Your task to perform on an android device: check out phone information Image 0: 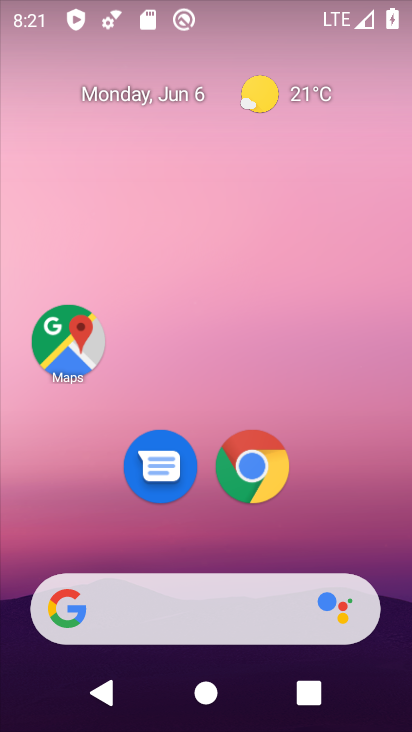
Step 0: drag from (188, 555) to (22, 263)
Your task to perform on an android device: check out phone information Image 1: 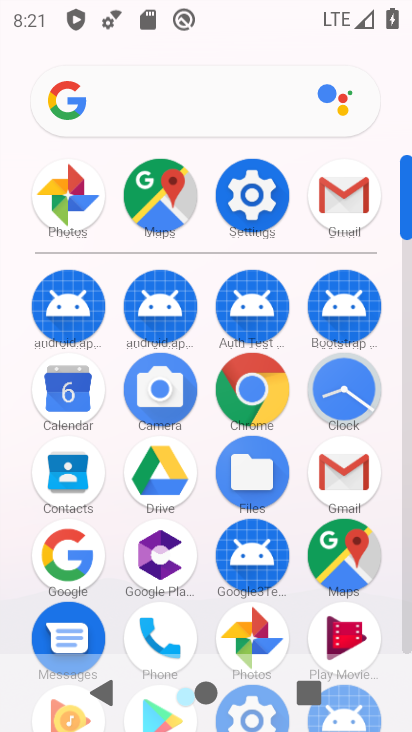
Step 1: click (245, 201)
Your task to perform on an android device: check out phone information Image 2: 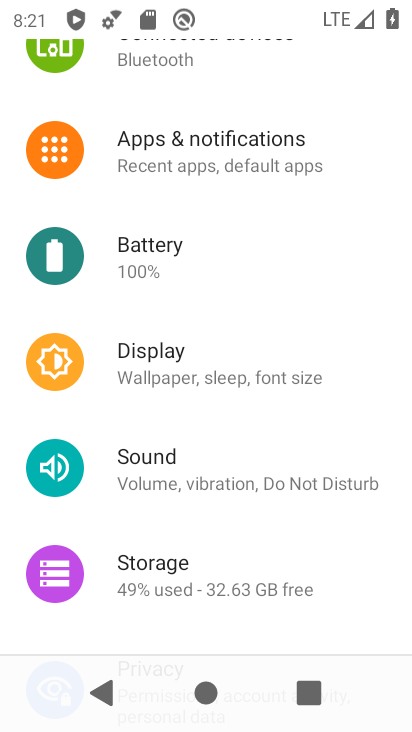
Step 2: drag from (171, 565) to (170, 10)
Your task to perform on an android device: check out phone information Image 3: 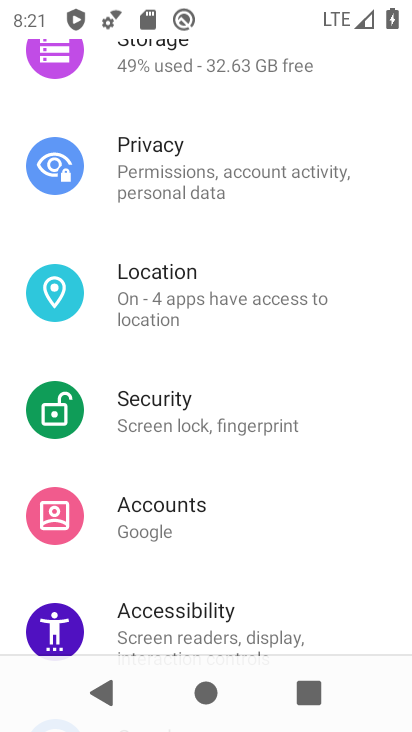
Step 3: drag from (168, 591) to (212, 27)
Your task to perform on an android device: check out phone information Image 4: 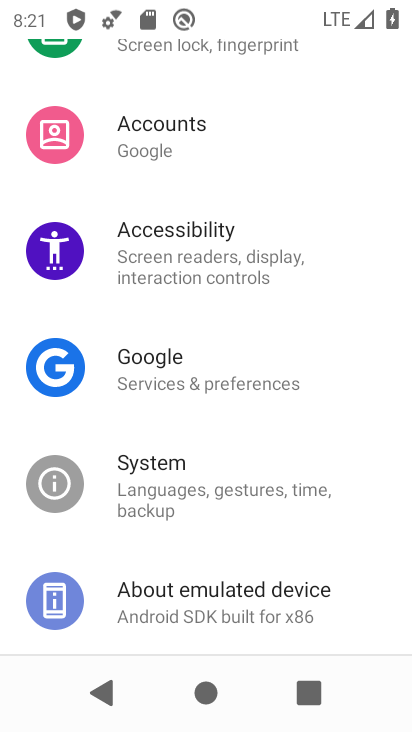
Step 4: drag from (194, 565) to (256, 16)
Your task to perform on an android device: check out phone information Image 5: 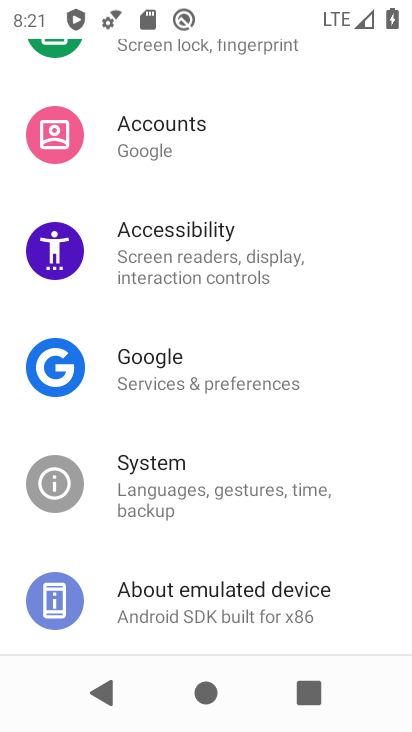
Step 5: click (222, 594)
Your task to perform on an android device: check out phone information Image 6: 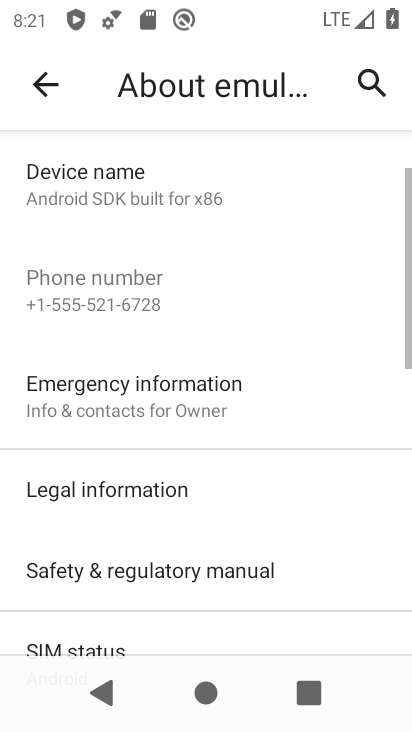
Step 6: task complete